Your task to perform on an android device: show emergency info Image 0: 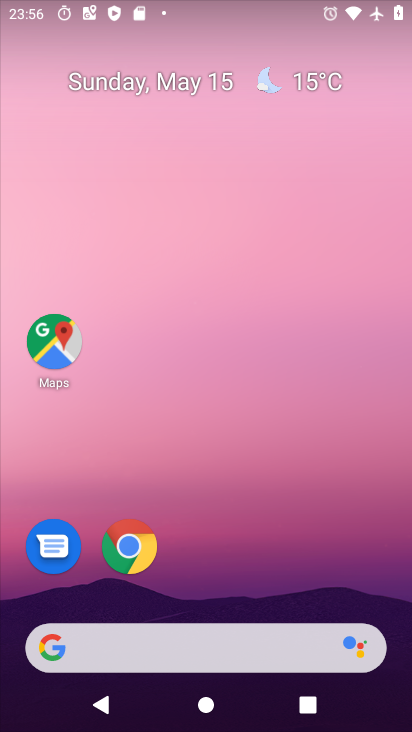
Step 0: drag from (281, 662) to (198, 150)
Your task to perform on an android device: show emergency info Image 1: 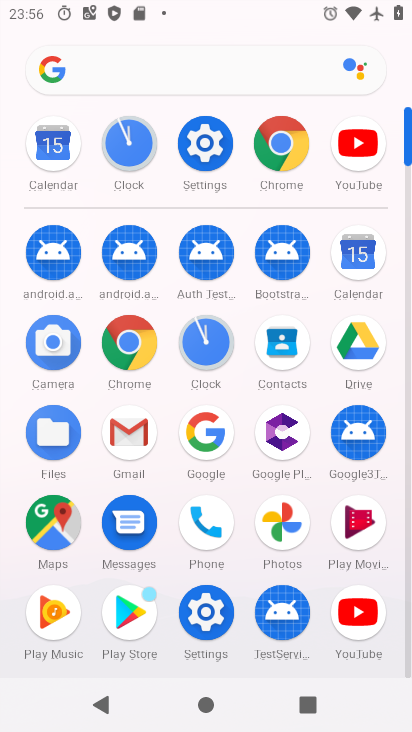
Step 1: click (188, 139)
Your task to perform on an android device: show emergency info Image 2: 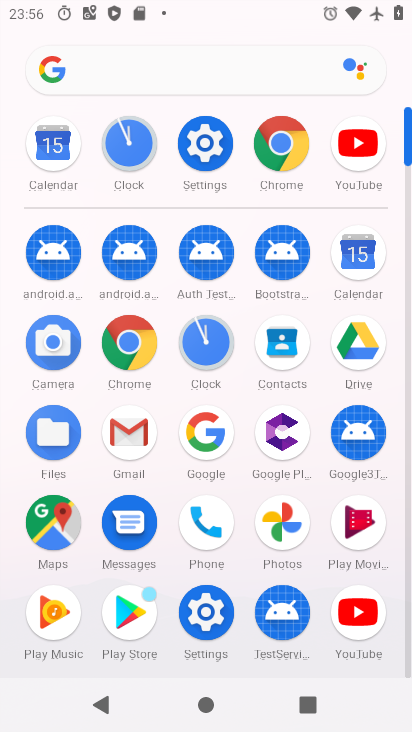
Step 2: click (201, 140)
Your task to perform on an android device: show emergency info Image 3: 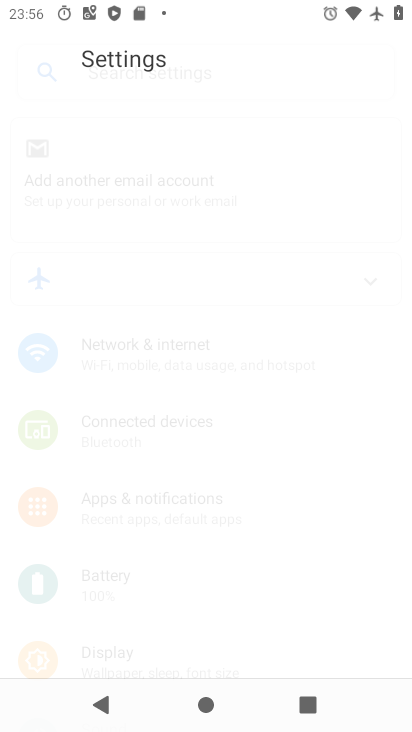
Step 3: click (203, 142)
Your task to perform on an android device: show emergency info Image 4: 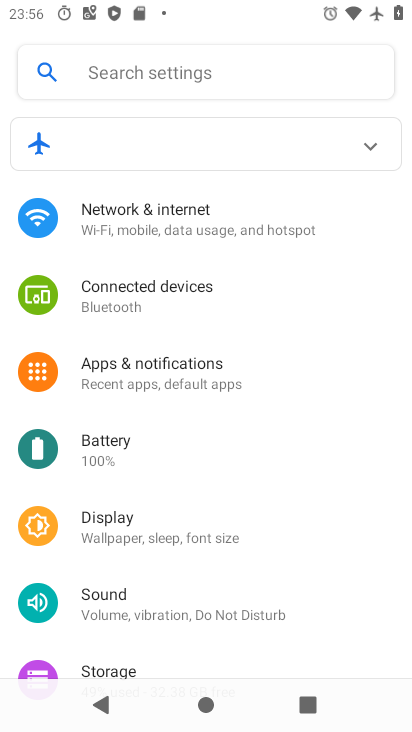
Step 4: click (208, 145)
Your task to perform on an android device: show emergency info Image 5: 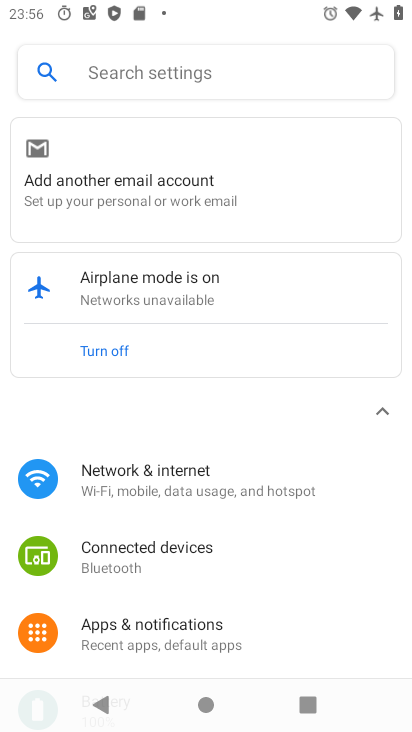
Step 5: drag from (159, 523) to (123, 279)
Your task to perform on an android device: show emergency info Image 6: 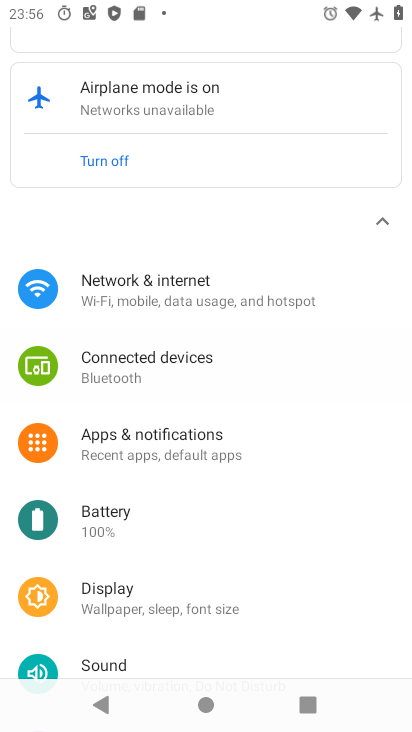
Step 6: drag from (160, 498) to (158, 246)
Your task to perform on an android device: show emergency info Image 7: 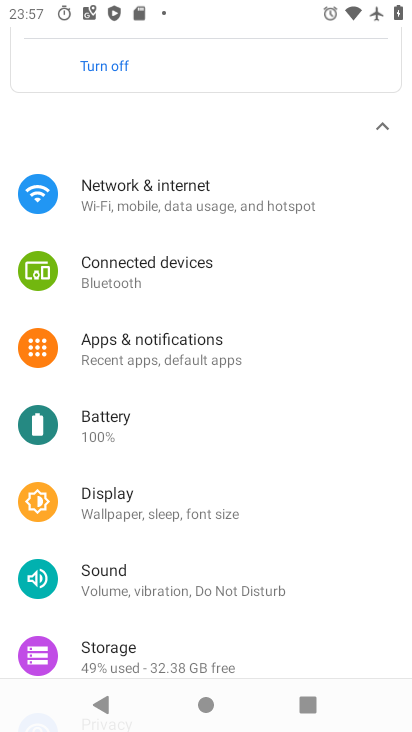
Step 7: drag from (128, 620) to (153, 246)
Your task to perform on an android device: show emergency info Image 8: 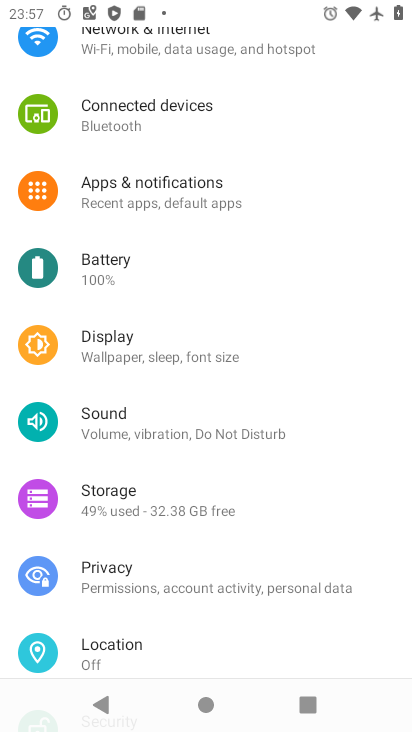
Step 8: drag from (205, 538) to (239, 225)
Your task to perform on an android device: show emergency info Image 9: 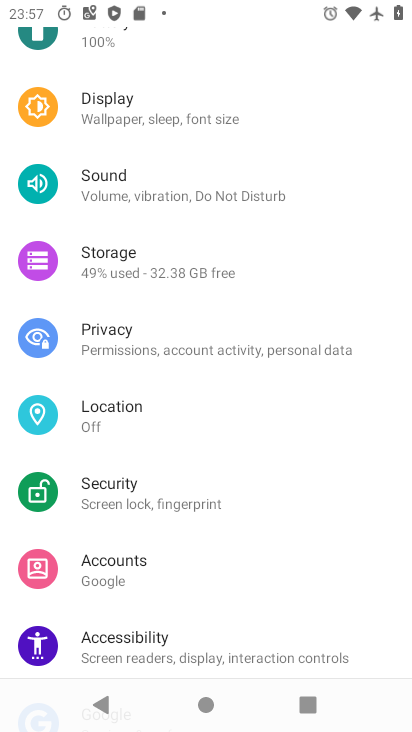
Step 9: drag from (234, 451) to (255, 230)
Your task to perform on an android device: show emergency info Image 10: 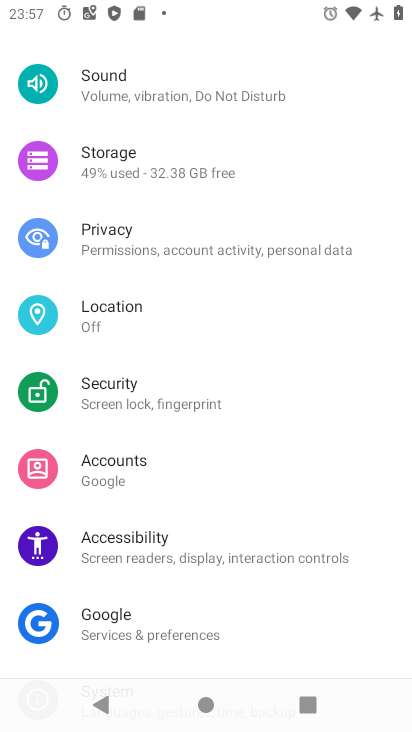
Step 10: drag from (274, 512) to (285, 200)
Your task to perform on an android device: show emergency info Image 11: 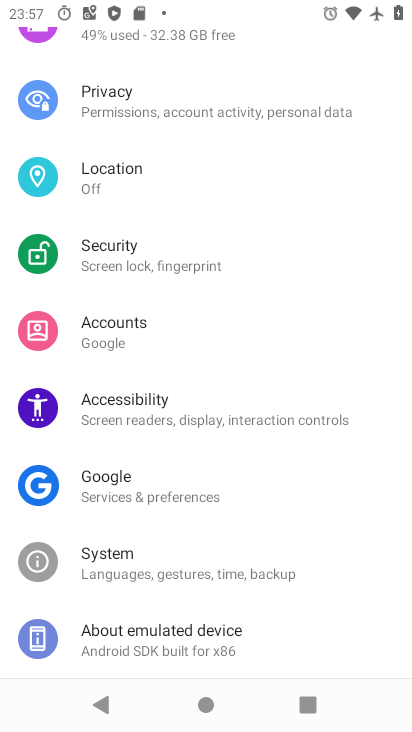
Step 11: drag from (151, 546) to (141, 114)
Your task to perform on an android device: show emergency info Image 12: 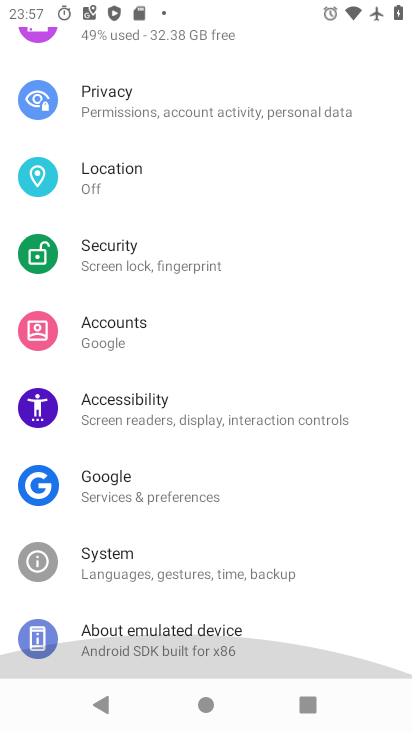
Step 12: drag from (234, 525) to (233, 196)
Your task to perform on an android device: show emergency info Image 13: 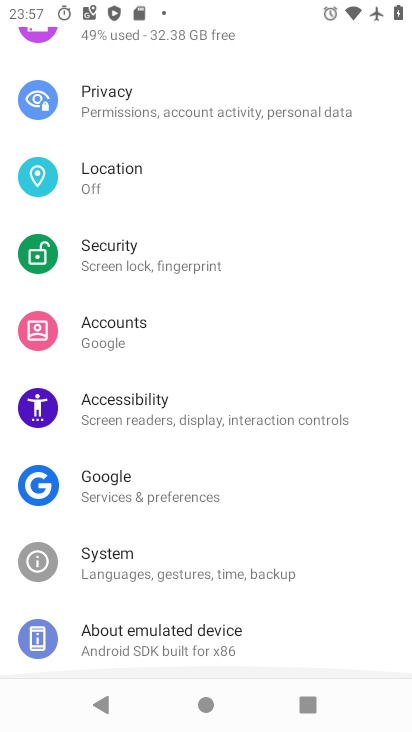
Step 13: drag from (302, 272) to (308, 189)
Your task to perform on an android device: show emergency info Image 14: 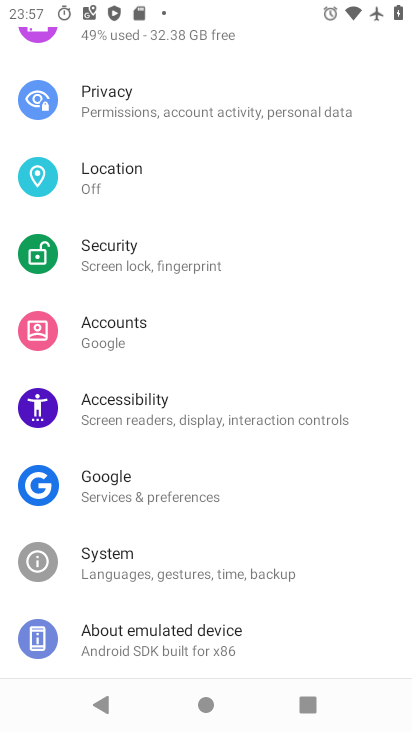
Step 14: drag from (268, 469) to (245, 105)
Your task to perform on an android device: show emergency info Image 15: 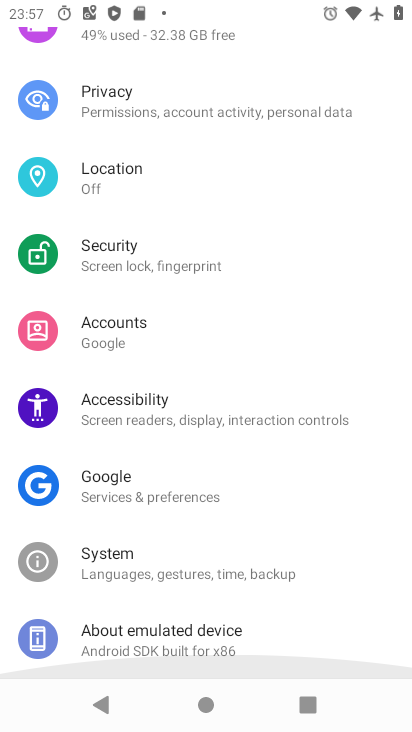
Step 15: drag from (220, 497) to (164, 165)
Your task to perform on an android device: show emergency info Image 16: 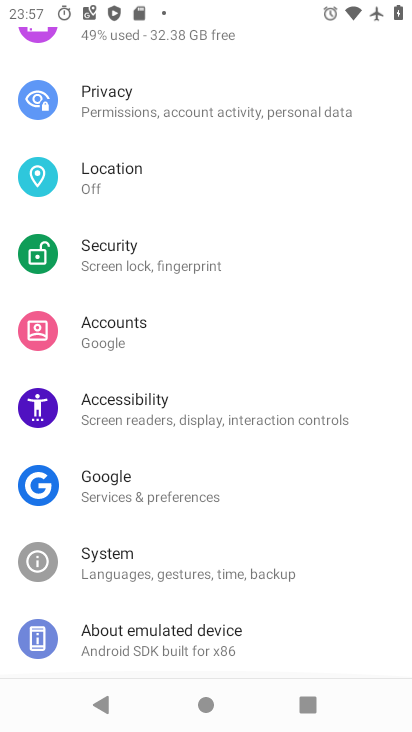
Step 16: drag from (197, 448) to (141, 103)
Your task to perform on an android device: show emergency info Image 17: 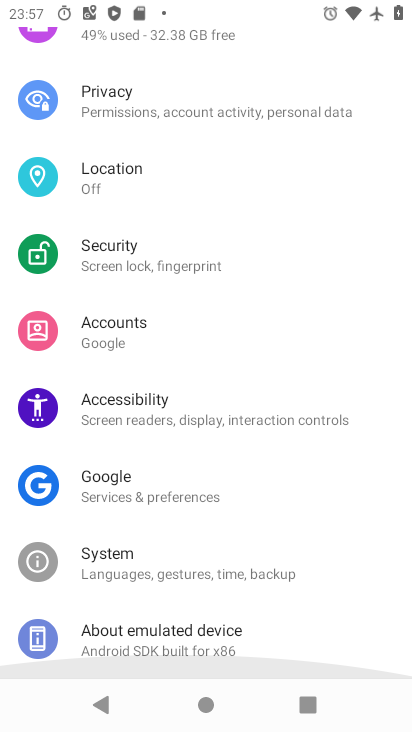
Step 17: drag from (204, 526) to (196, 220)
Your task to perform on an android device: show emergency info Image 18: 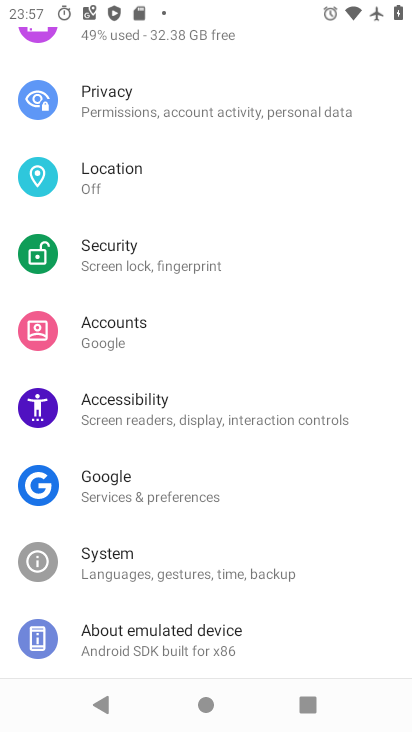
Step 18: click (127, 641)
Your task to perform on an android device: show emergency info Image 19: 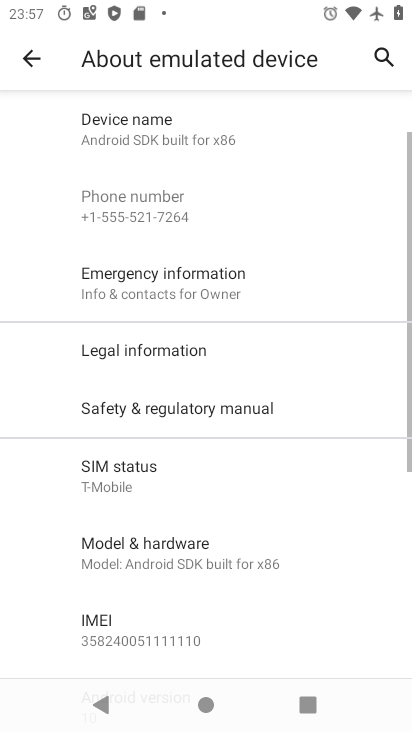
Step 19: click (139, 288)
Your task to perform on an android device: show emergency info Image 20: 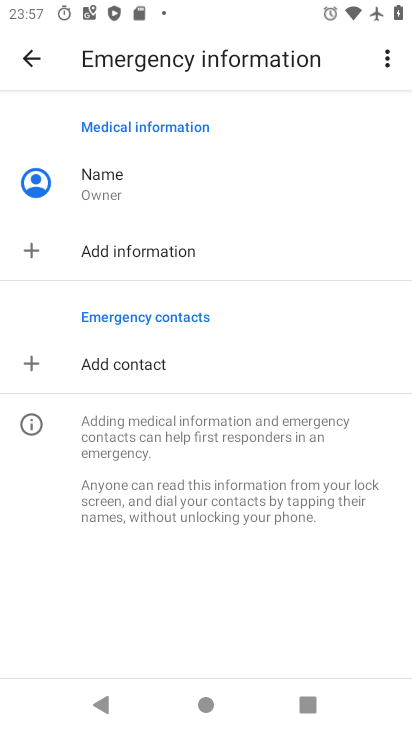
Step 20: task complete